Your task to perform on an android device: Open settings Image 0: 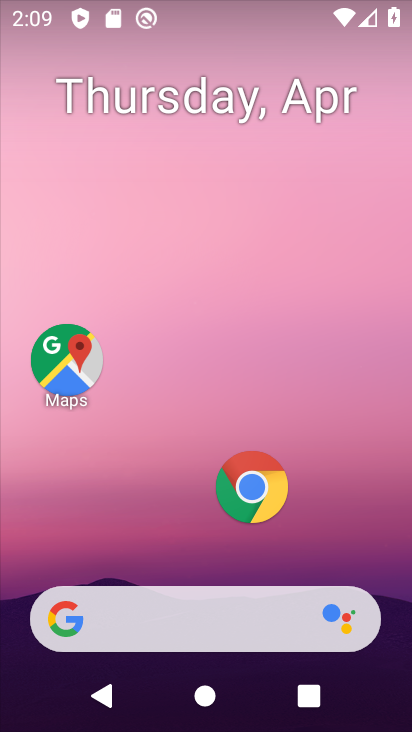
Step 0: drag from (180, 456) to (343, 46)
Your task to perform on an android device: Open settings Image 1: 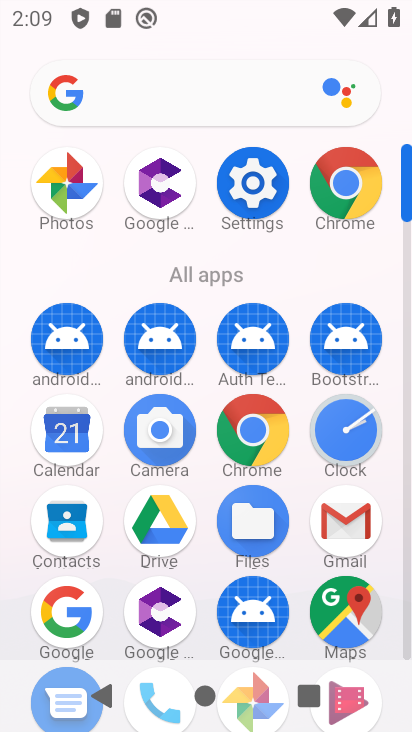
Step 1: drag from (152, 608) to (220, 295)
Your task to perform on an android device: Open settings Image 2: 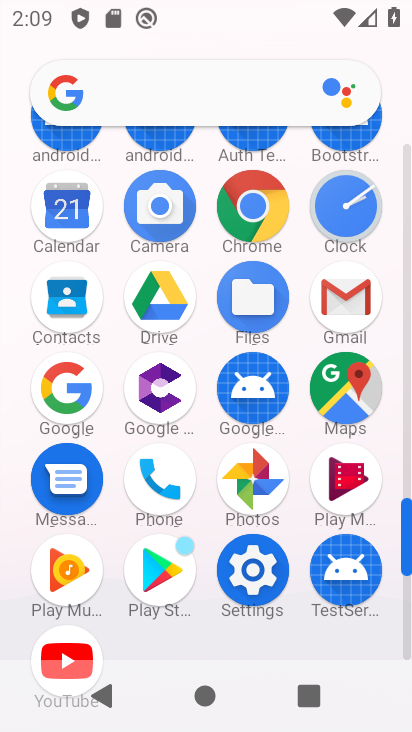
Step 2: click (260, 589)
Your task to perform on an android device: Open settings Image 3: 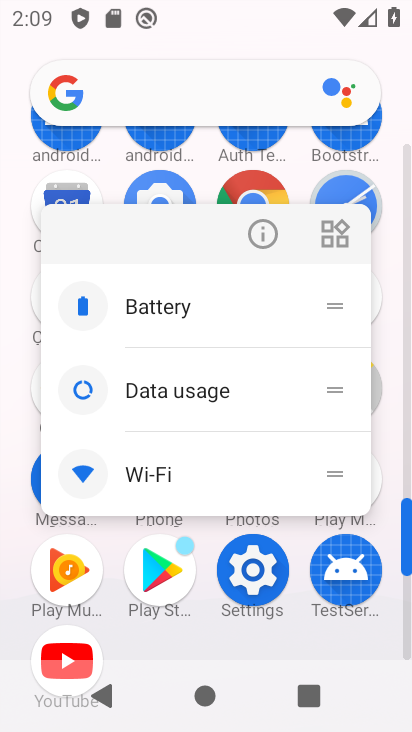
Step 3: click (256, 562)
Your task to perform on an android device: Open settings Image 4: 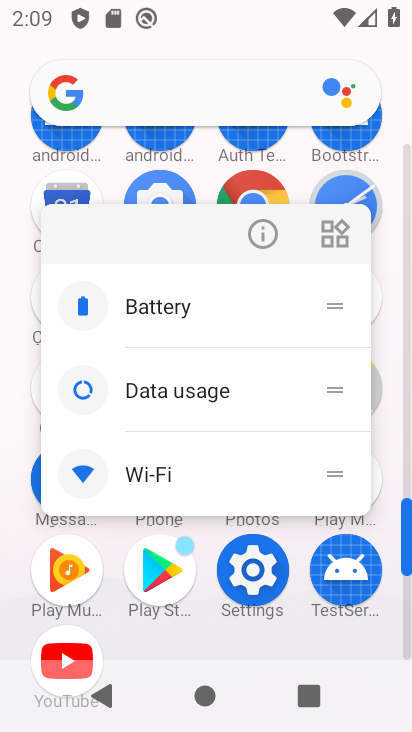
Step 4: click (255, 571)
Your task to perform on an android device: Open settings Image 5: 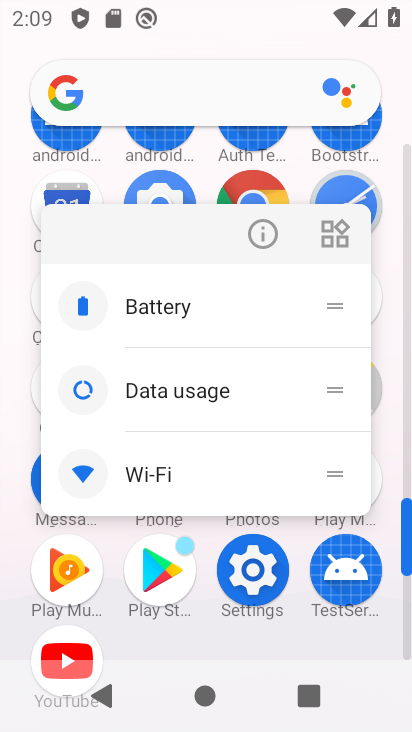
Step 5: click (256, 567)
Your task to perform on an android device: Open settings Image 6: 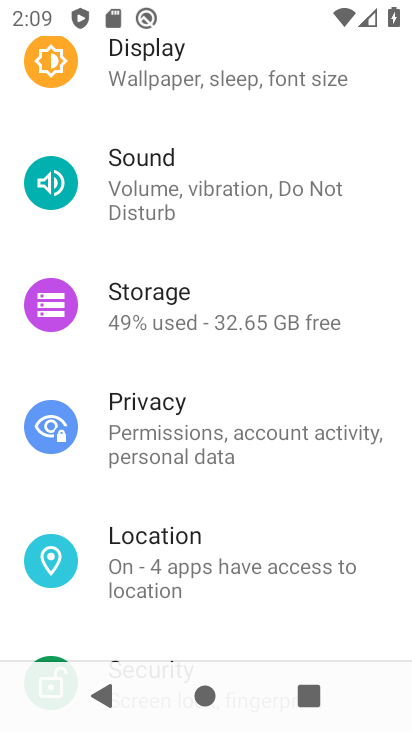
Step 6: task complete